Your task to perform on an android device: Open Google Chrome Image 0: 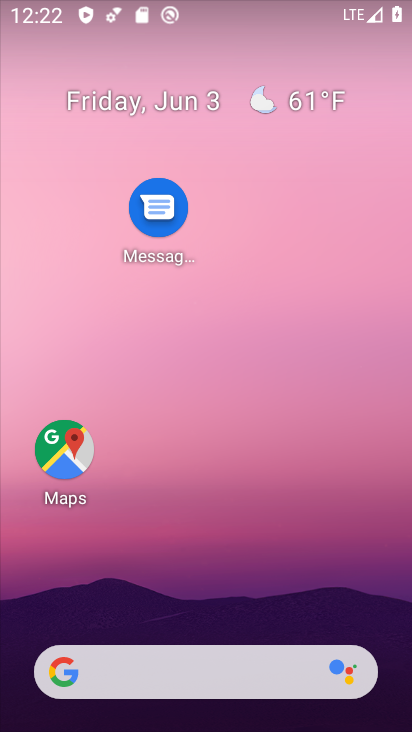
Step 0: drag from (197, 648) to (400, 391)
Your task to perform on an android device: Open Google Chrome Image 1: 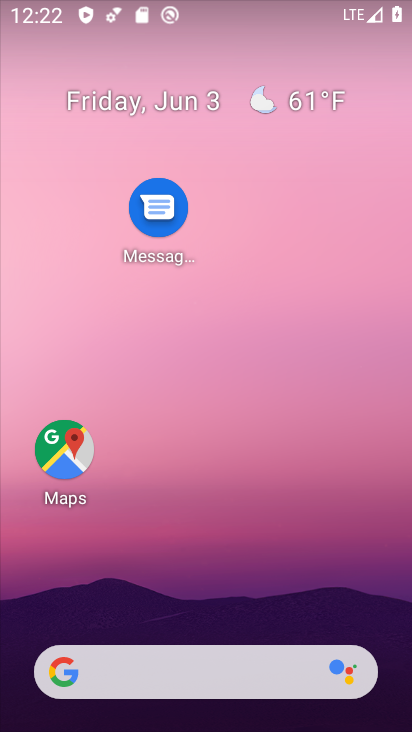
Step 1: click (252, 400)
Your task to perform on an android device: Open Google Chrome Image 2: 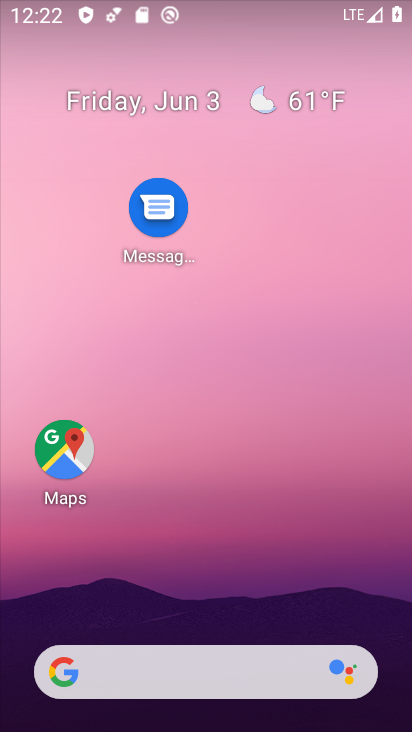
Step 2: drag from (231, 582) to (122, 45)
Your task to perform on an android device: Open Google Chrome Image 3: 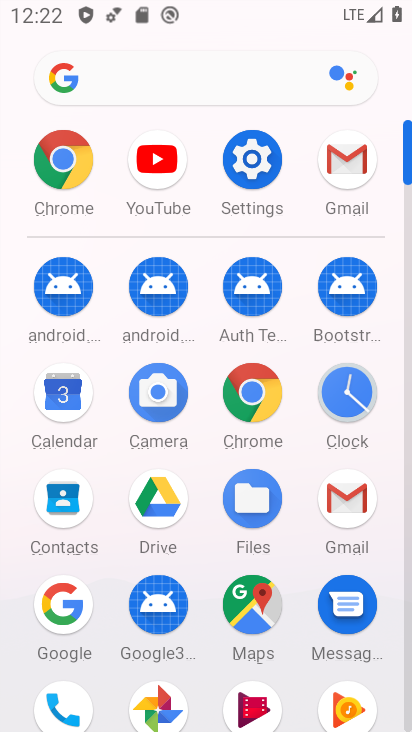
Step 3: click (240, 417)
Your task to perform on an android device: Open Google Chrome Image 4: 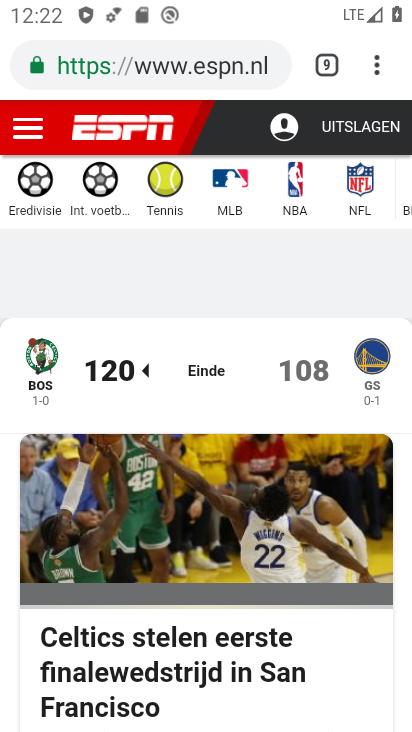
Step 4: task complete